Your task to perform on an android device: Open Yahoo.com Image 0: 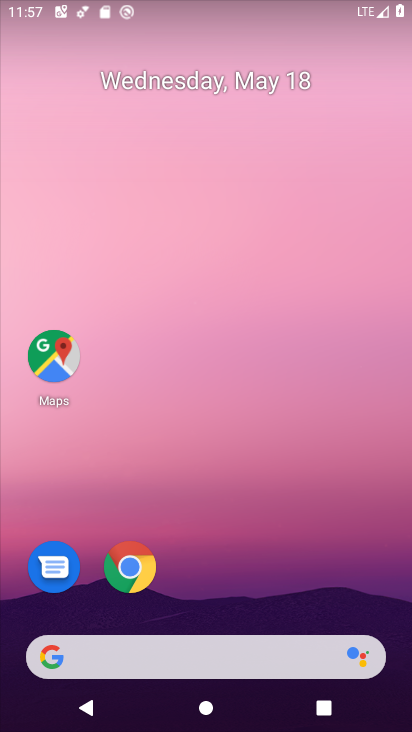
Step 0: click (131, 557)
Your task to perform on an android device: Open Yahoo.com Image 1: 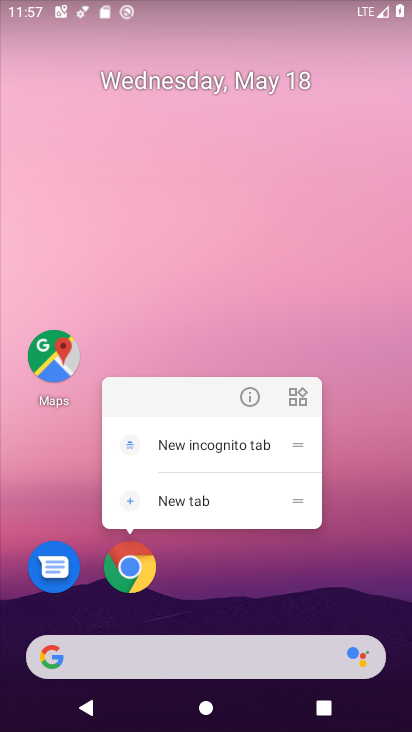
Step 1: click (130, 557)
Your task to perform on an android device: Open Yahoo.com Image 2: 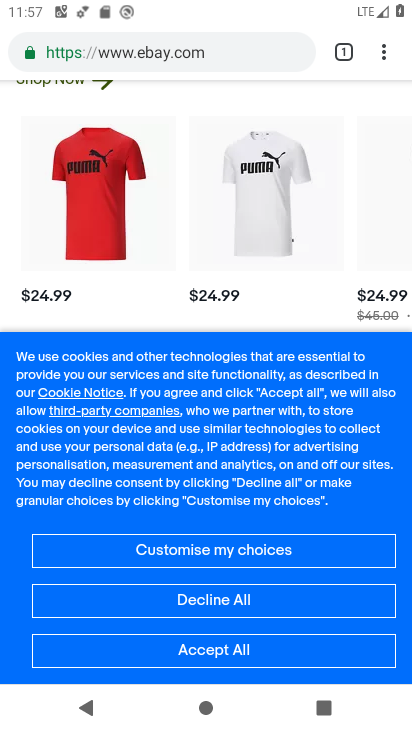
Step 2: click (163, 41)
Your task to perform on an android device: Open Yahoo.com Image 3: 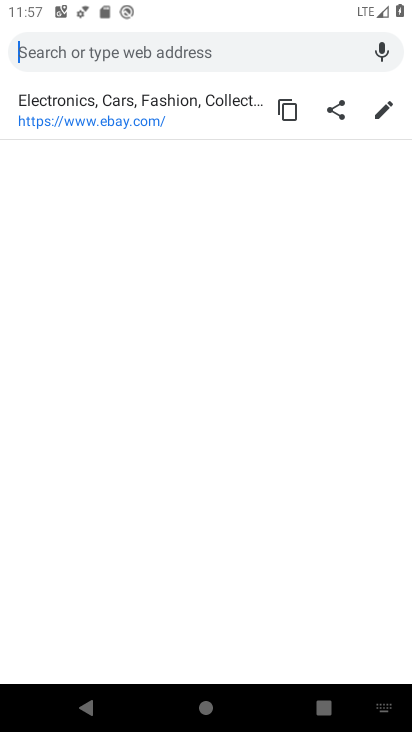
Step 3: type "yahoo"
Your task to perform on an android device: Open Yahoo.com Image 4: 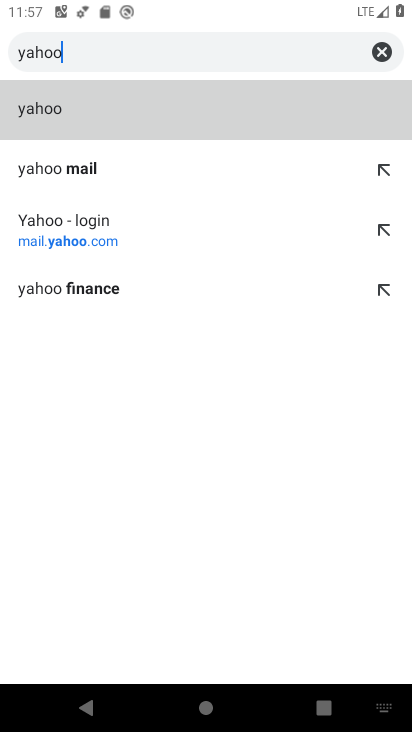
Step 4: click (87, 240)
Your task to perform on an android device: Open Yahoo.com Image 5: 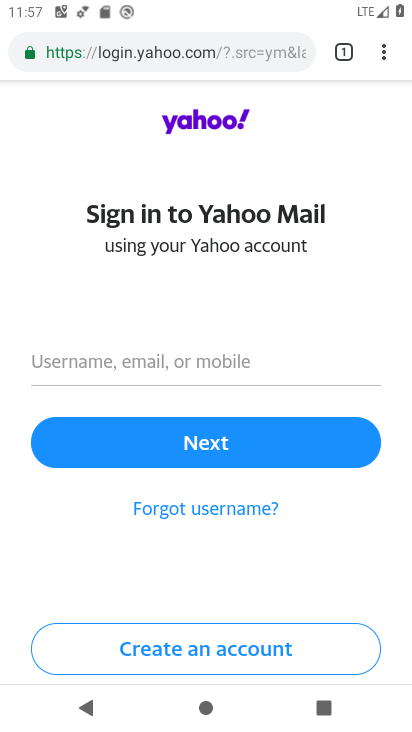
Step 5: task complete